Your task to perform on an android device: add a label to a message in the gmail app Image 0: 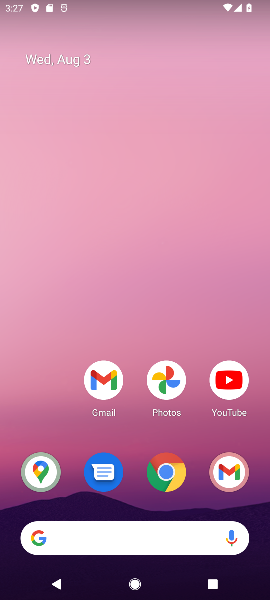
Step 0: drag from (210, 491) to (97, 64)
Your task to perform on an android device: add a label to a message in the gmail app Image 1: 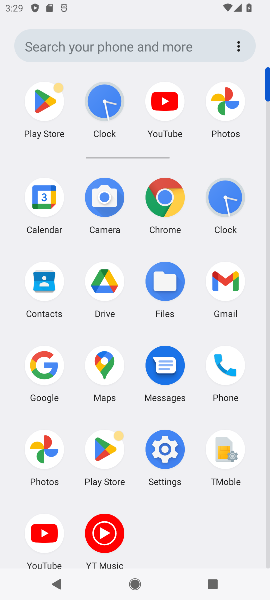
Step 1: click (221, 291)
Your task to perform on an android device: add a label to a message in the gmail app Image 2: 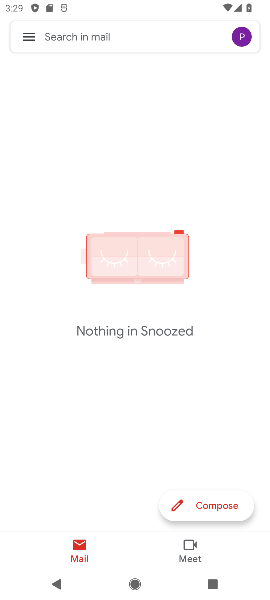
Step 2: task complete